Your task to perform on an android device: turn on the 24-hour format for clock Image 0: 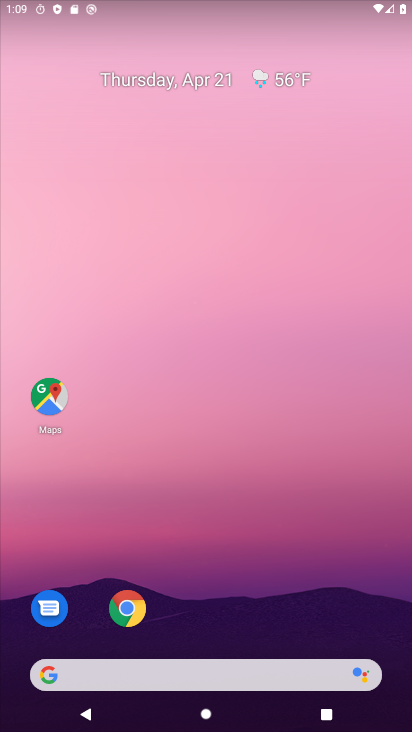
Step 0: drag from (273, 573) to (267, 29)
Your task to perform on an android device: turn on the 24-hour format for clock Image 1: 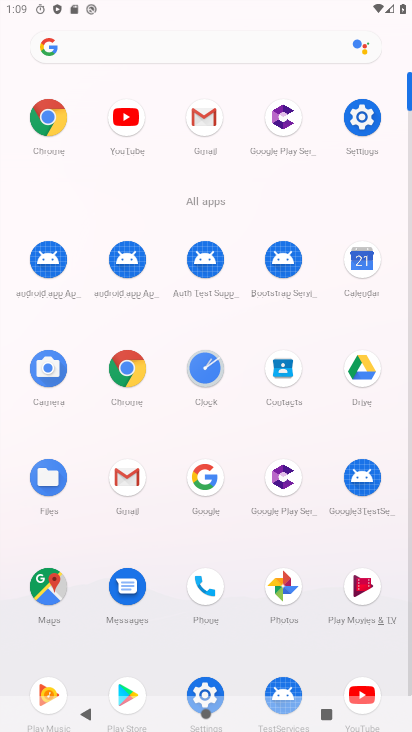
Step 1: click (210, 371)
Your task to perform on an android device: turn on the 24-hour format for clock Image 2: 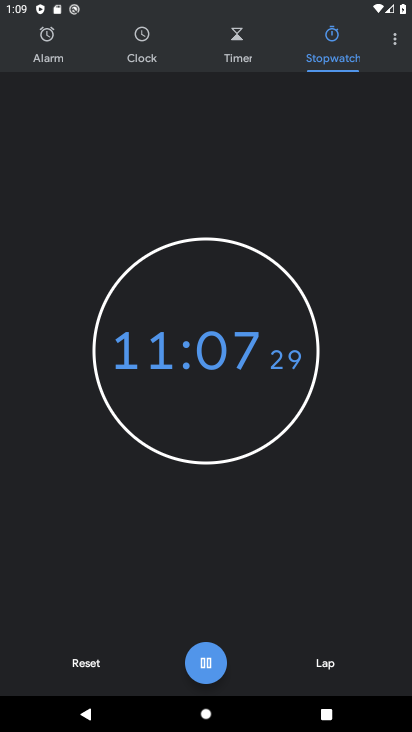
Step 2: click (397, 39)
Your task to perform on an android device: turn on the 24-hour format for clock Image 3: 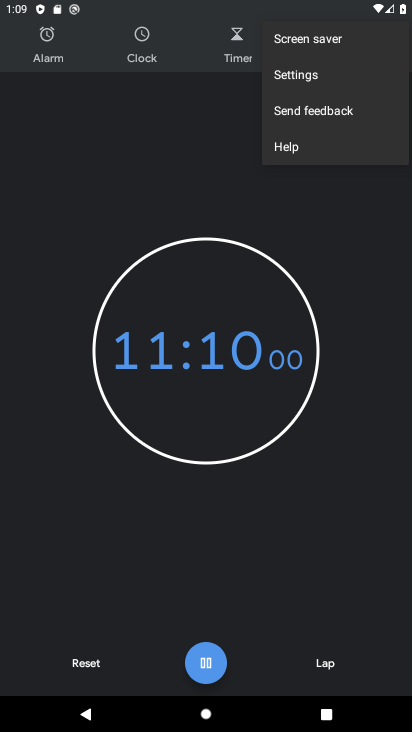
Step 3: click (309, 79)
Your task to perform on an android device: turn on the 24-hour format for clock Image 4: 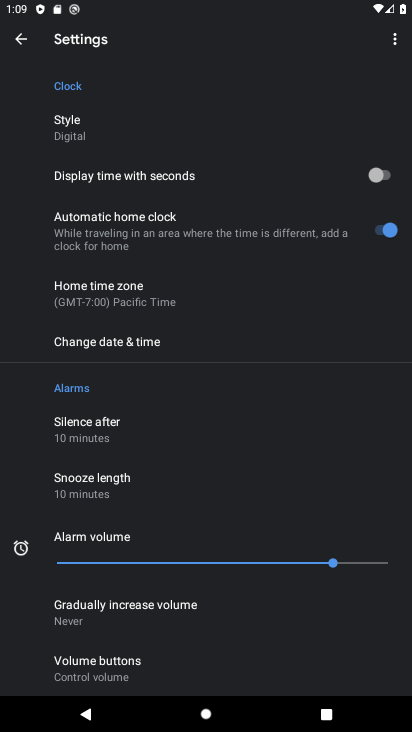
Step 4: drag from (231, 647) to (228, 178)
Your task to perform on an android device: turn on the 24-hour format for clock Image 5: 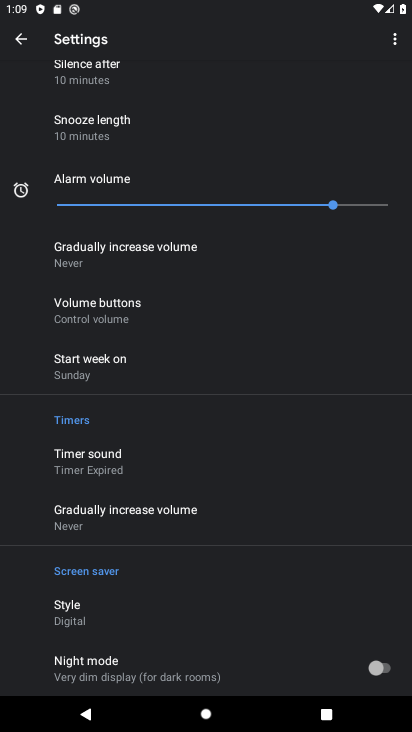
Step 5: drag from (245, 166) to (194, 578)
Your task to perform on an android device: turn on the 24-hour format for clock Image 6: 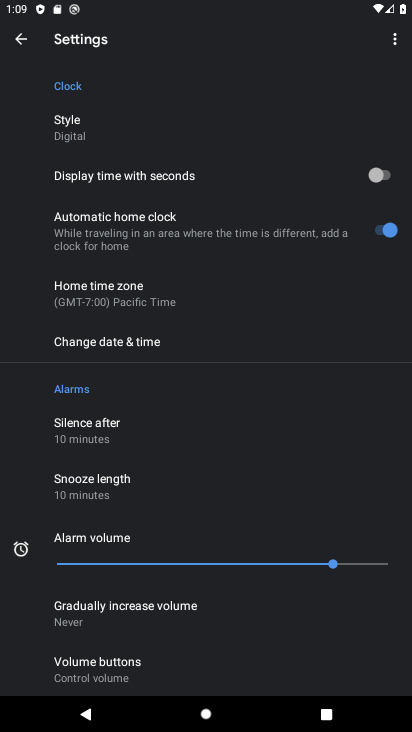
Step 6: click (130, 341)
Your task to perform on an android device: turn on the 24-hour format for clock Image 7: 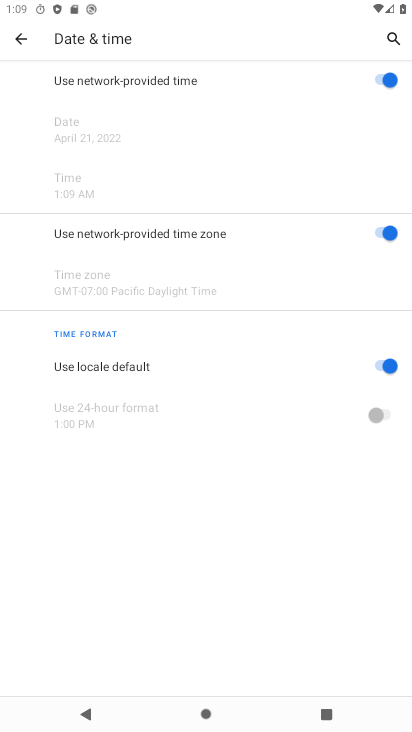
Step 7: click (376, 360)
Your task to perform on an android device: turn on the 24-hour format for clock Image 8: 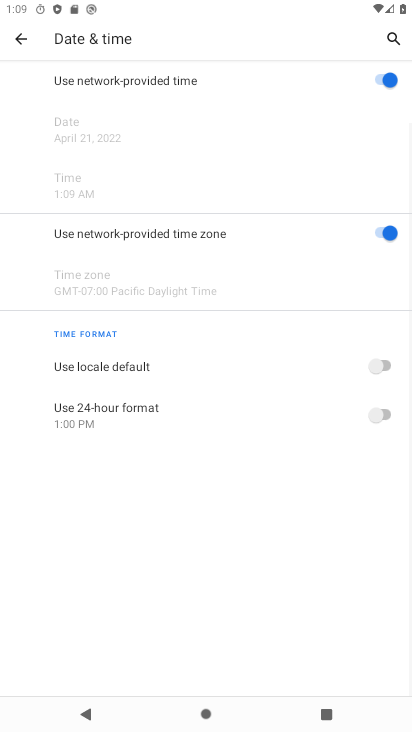
Step 8: click (387, 416)
Your task to perform on an android device: turn on the 24-hour format for clock Image 9: 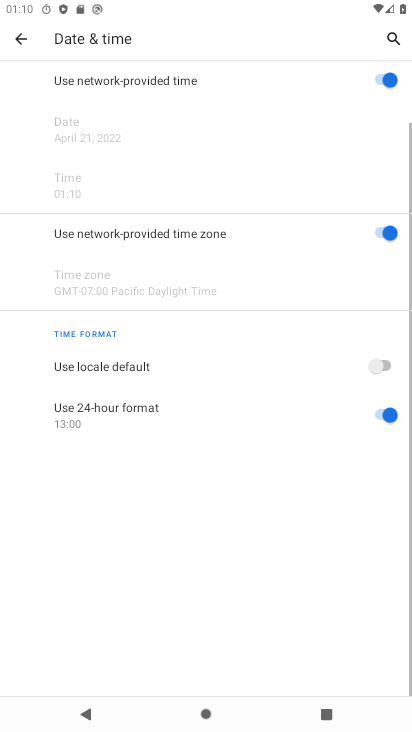
Step 9: task complete